Your task to perform on an android device: What is the recent news? Image 0: 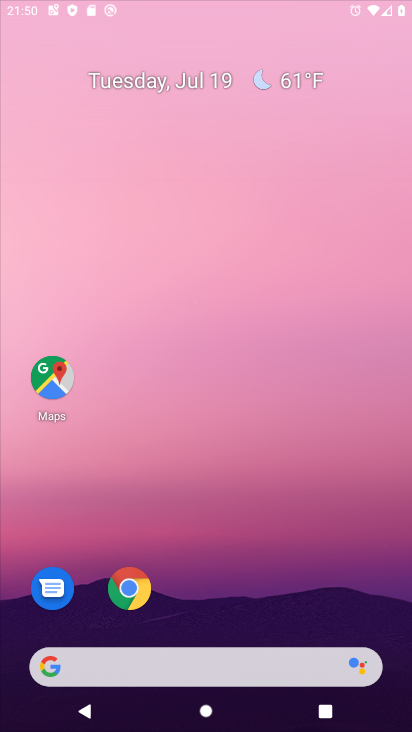
Step 0: press home button
Your task to perform on an android device: What is the recent news? Image 1: 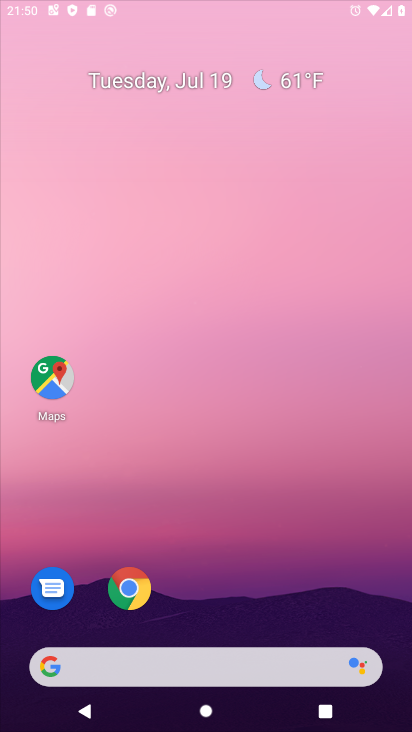
Step 1: task complete